Your task to perform on an android device: manage bookmarks in the chrome app Image 0: 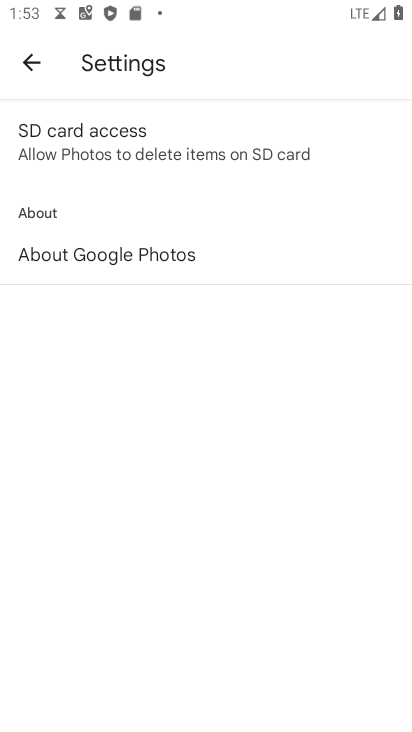
Step 0: press home button
Your task to perform on an android device: manage bookmarks in the chrome app Image 1: 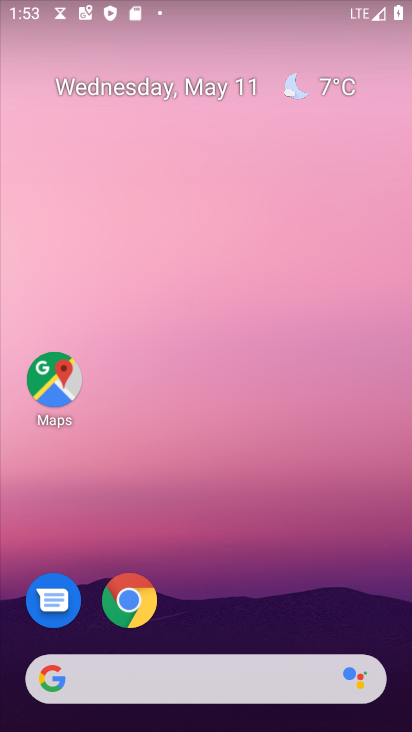
Step 1: click (131, 601)
Your task to perform on an android device: manage bookmarks in the chrome app Image 2: 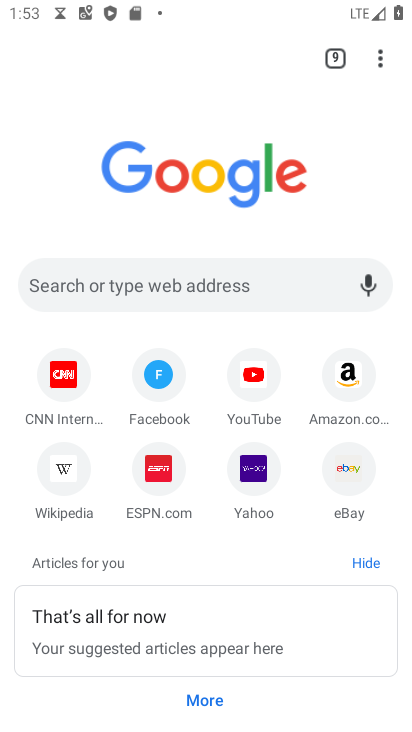
Step 2: click (378, 51)
Your task to perform on an android device: manage bookmarks in the chrome app Image 3: 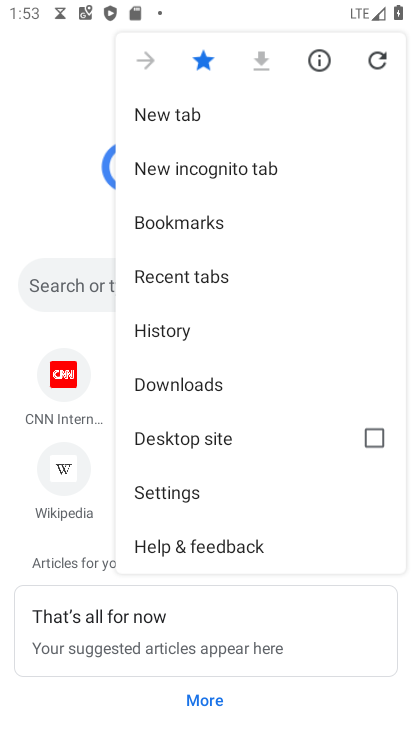
Step 3: click (185, 233)
Your task to perform on an android device: manage bookmarks in the chrome app Image 4: 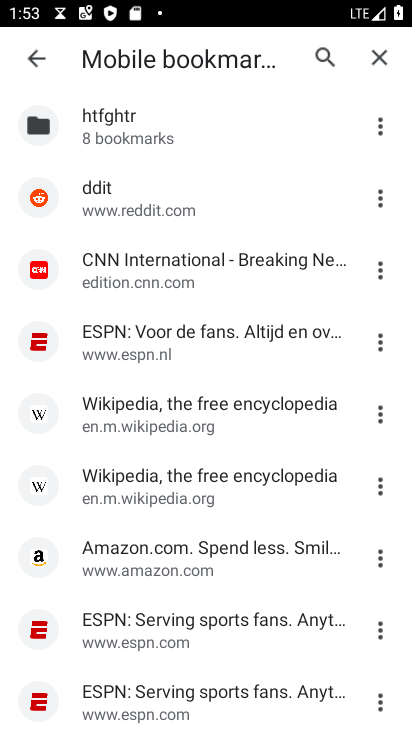
Step 4: click (378, 354)
Your task to perform on an android device: manage bookmarks in the chrome app Image 5: 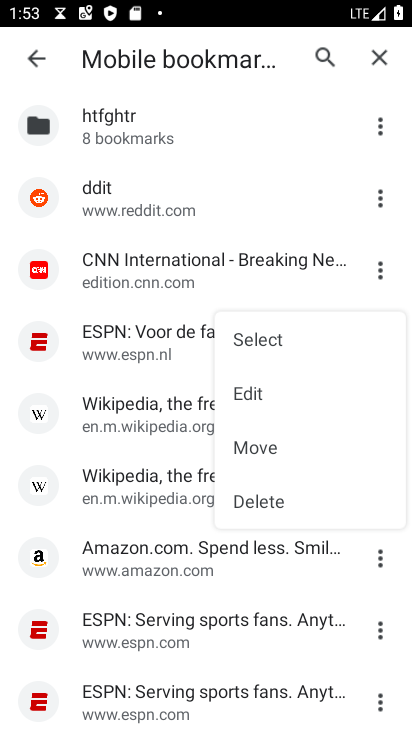
Step 5: click (285, 496)
Your task to perform on an android device: manage bookmarks in the chrome app Image 6: 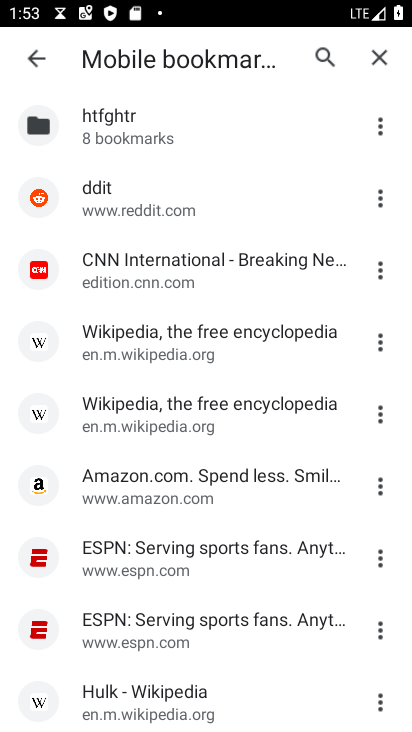
Step 6: task complete